Your task to perform on an android device: turn off sleep mode Image 0: 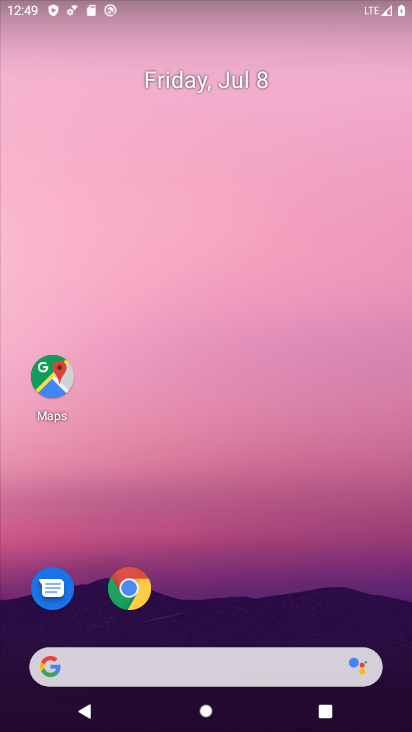
Step 0: drag from (196, 584) to (241, 81)
Your task to perform on an android device: turn off sleep mode Image 1: 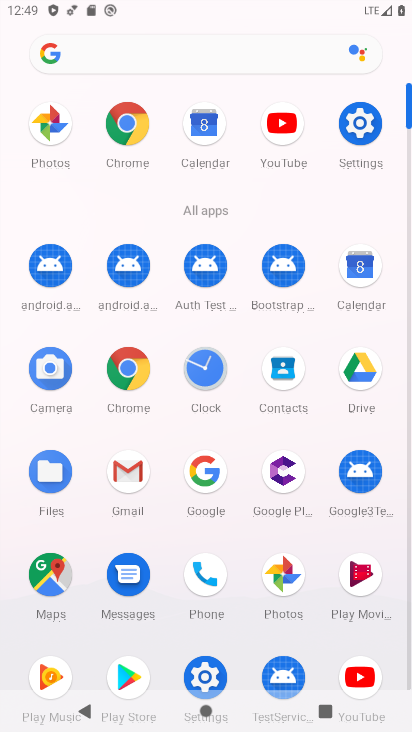
Step 1: click (211, 669)
Your task to perform on an android device: turn off sleep mode Image 2: 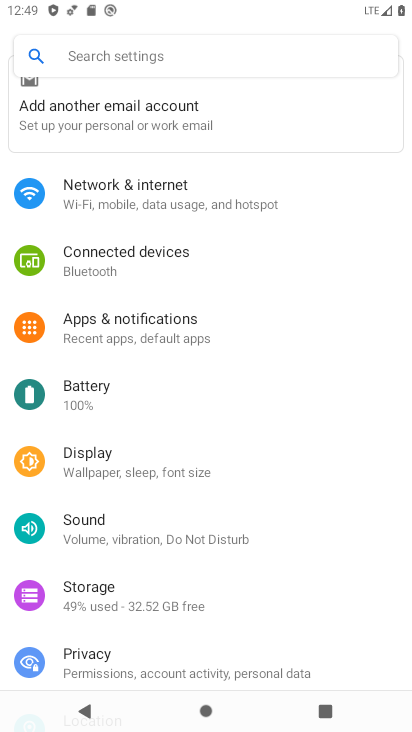
Step 2: click (215, 45)
Your task to perform on an android device: turn off sleep mode Image 3: 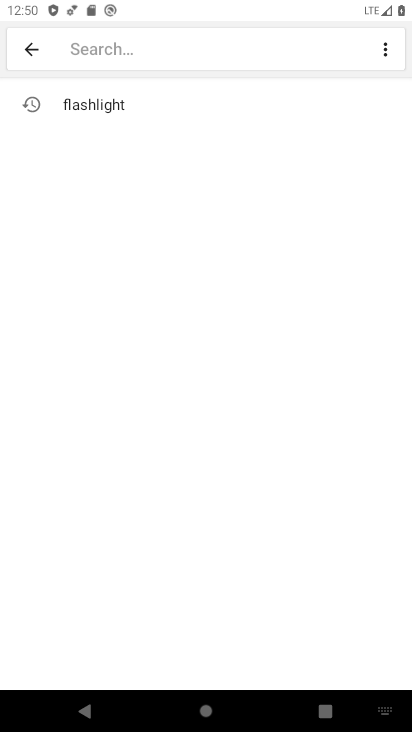
Step 3: type "sleep mode"
Your task to perform on an android device: turn off sleep mode Image 4: 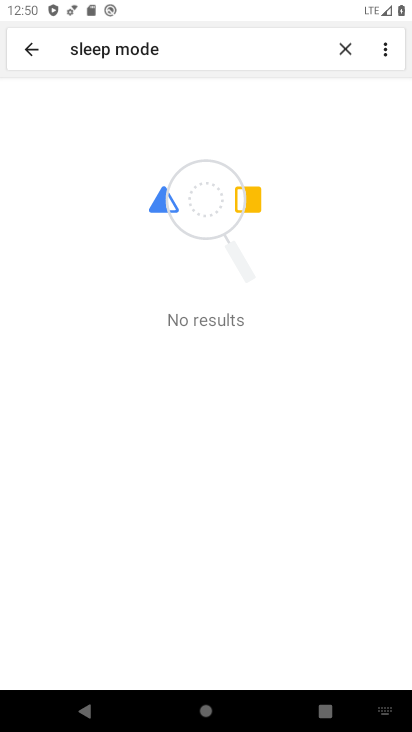
Step 4: task complete